Your task to perform on an android device: turn on translation in the chrome app Image 0: 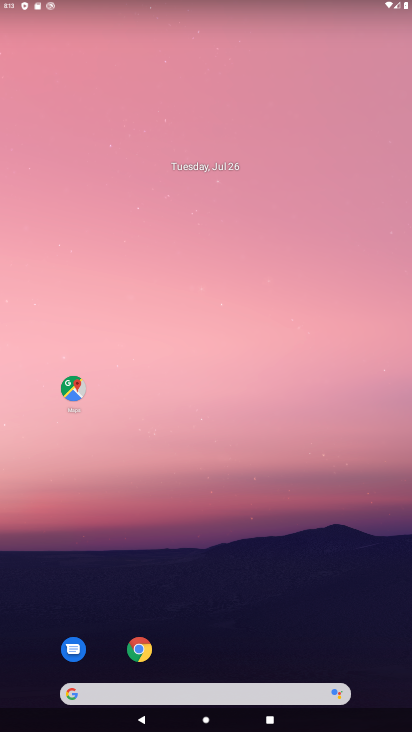
Step 0: click (133, 647)
Your task to perform on an android device: turn on translation in the chrome app Image 1: 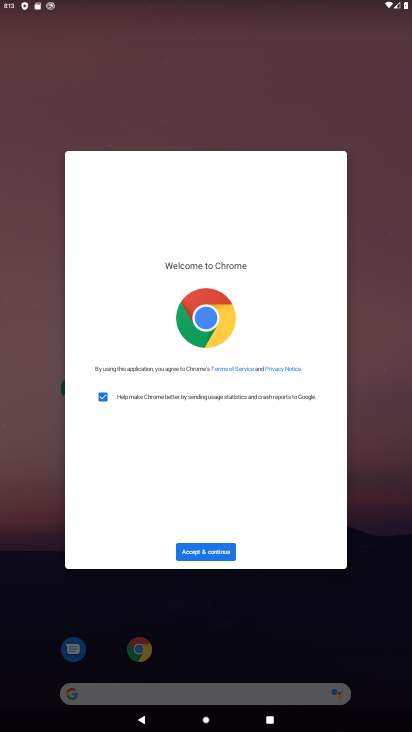
Step 1: click (223, 548)
Your task to perform on an android device: turn on translation in the chrome app Image 2: 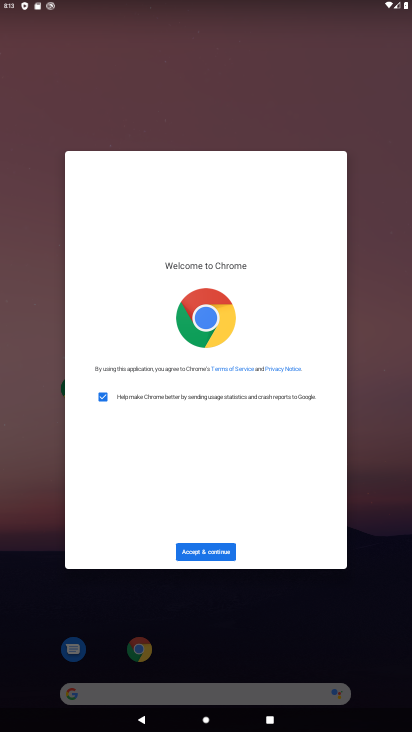
Step 2: click (223, 548)
Your task to perform on an android device: turn on translation in the chrome app Image 3: 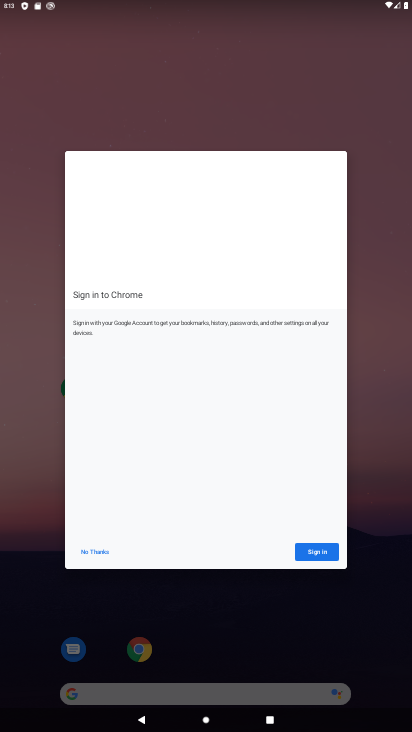
Step 3: click (223, 548)
Your task to perform on an android device: turn on translation in the chrome app Image 4: 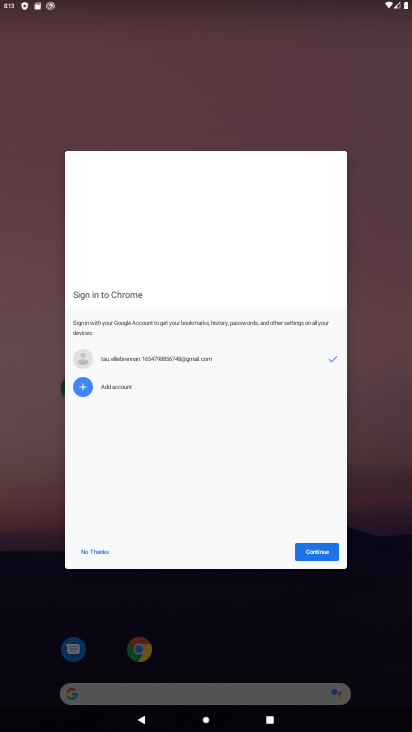
Step 4: click (223, 548)
Your task to perform on an android device: turn on translation in the chrome app Image 5: 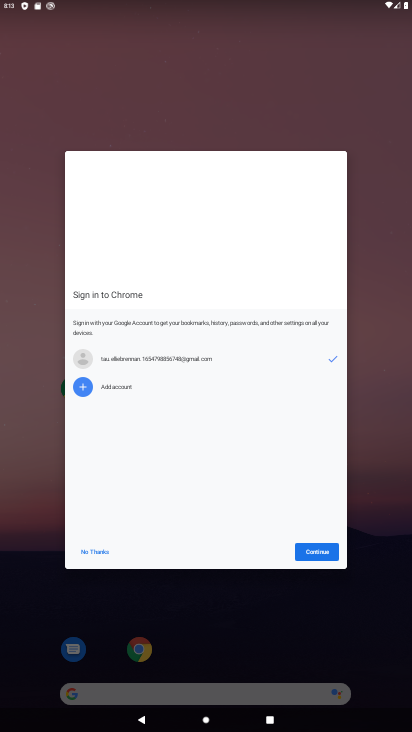
Step 5: click (223, 548)
Your task to perform on an android device: turn on translation in the chrome app Image 6: 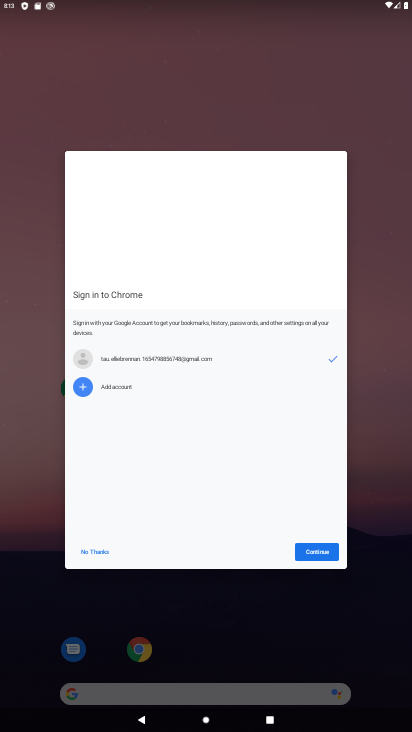
Step 6: click (223, 548)
Your task to perform on an android device: turn on translation in the chrome app Image 7: 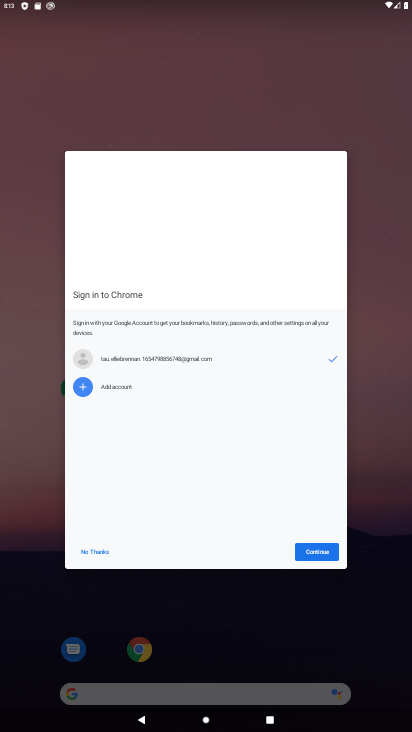
Step 7: click (308, 551)
Your task to perform on an android device: turn on translation in the chrome app Image 8: 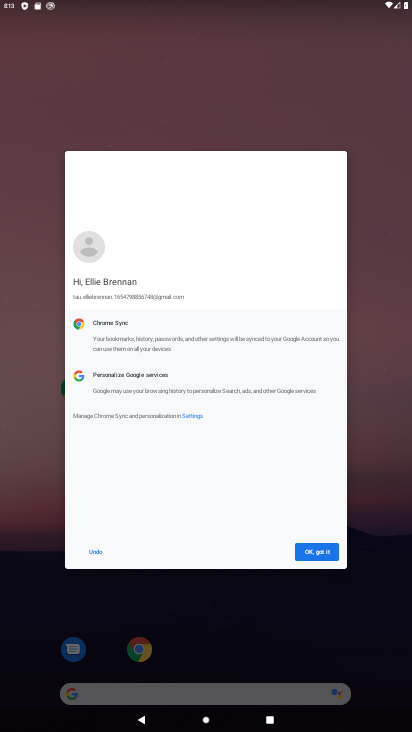
Step 8: click (308, 551)
Your task to perform on an android device: turn on translation in the chrome app Image 9: 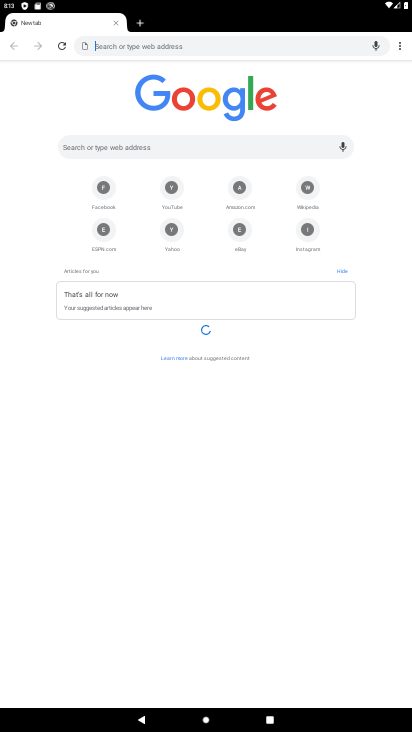
Step 9: click (405, 47)
Your task to perform on an android device: turn on translation in the chrome app Image 10: 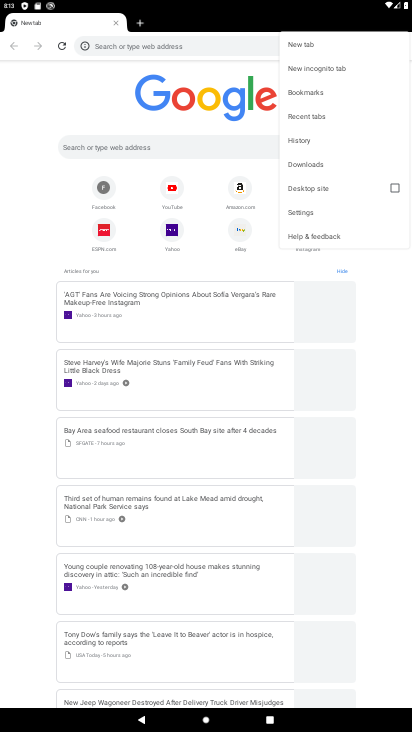
Step 10: click (315, 217)
Your task to perform on an android device: turn on translation in the chrome app Image 11: 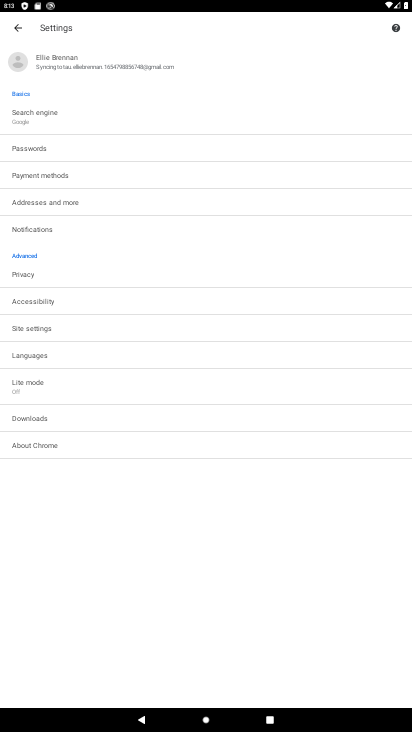
Step 11: click (82, 360)
Your task to perform on an android device: turn on translation in the chrome app Image 12: 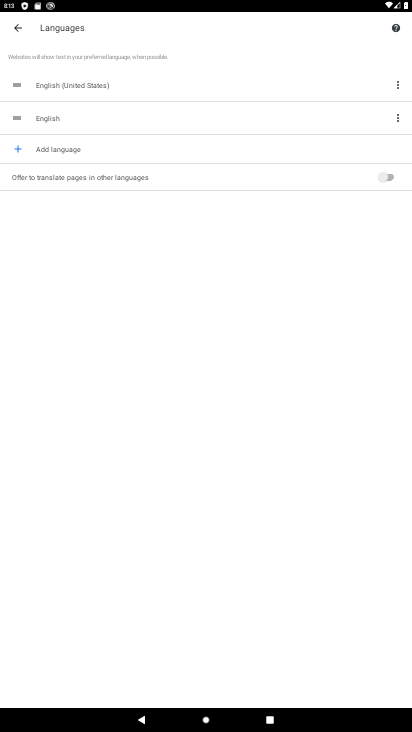
Step 12: click (397, 173)
Your task to perform on an android device: turn on translation in the chrome app Image 13: 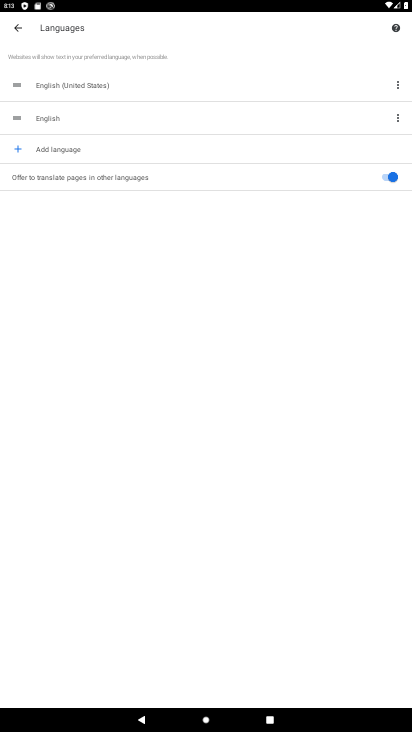
Step 13: task complete